Your task to perform on an android device: Open Yahoo.com Image 0: 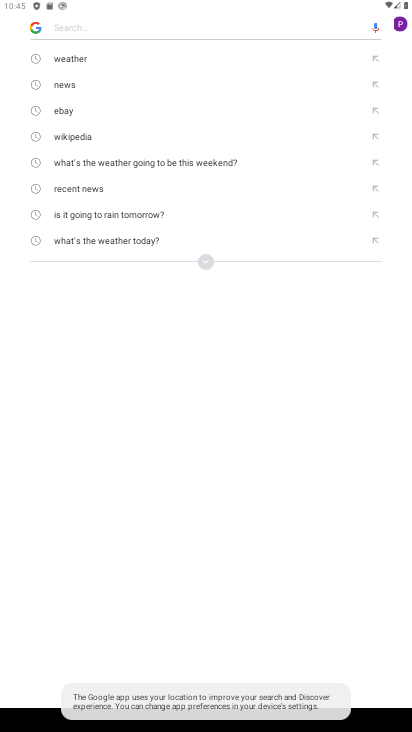
Step 0: press home button
Your task to perform on an android device: Open Yahoo.com Image 1: 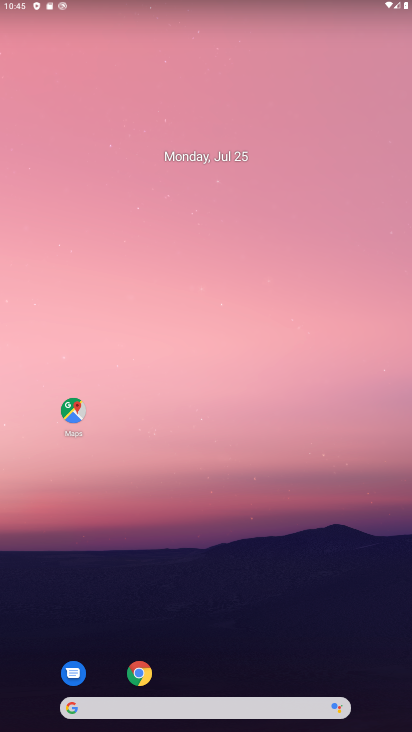
Step 1: click (69, 703)
Your task to perform on an android device: Open Yahoo.com Image 2: 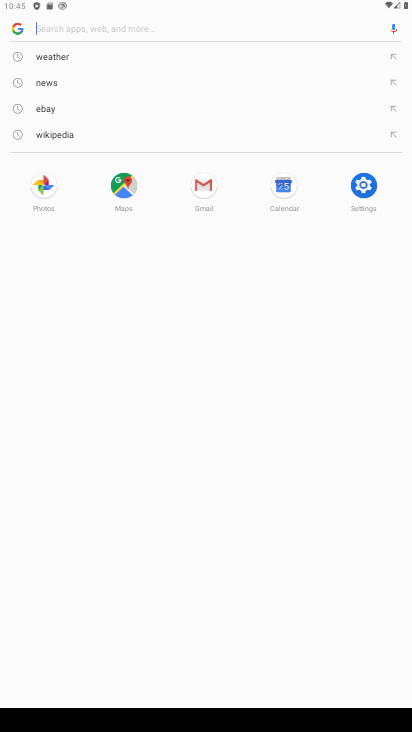
Step 2: type " Yahoo.com"
Your task to perform on an android device: Open Yahoo.com Image 3: 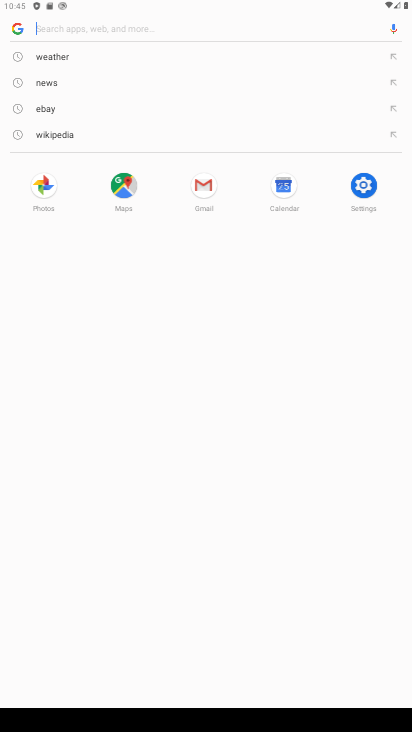
Step 3: click (58, 25)
Your task to perform on an android device: Open Yahoo.com Image 4: 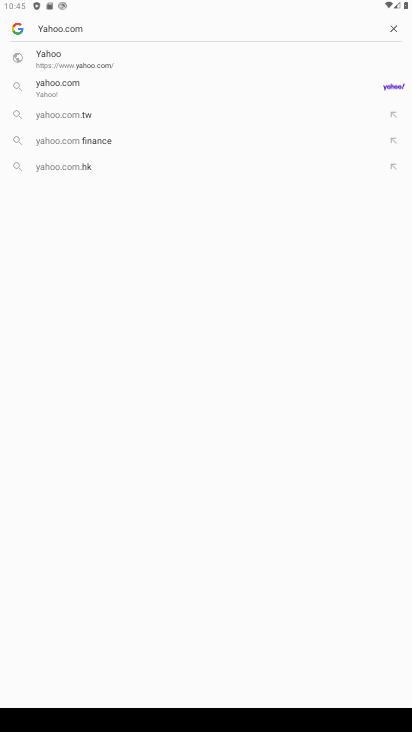
Step 4: press enter
Your task to perform on an android device: Open Yahoo.com Image 5: 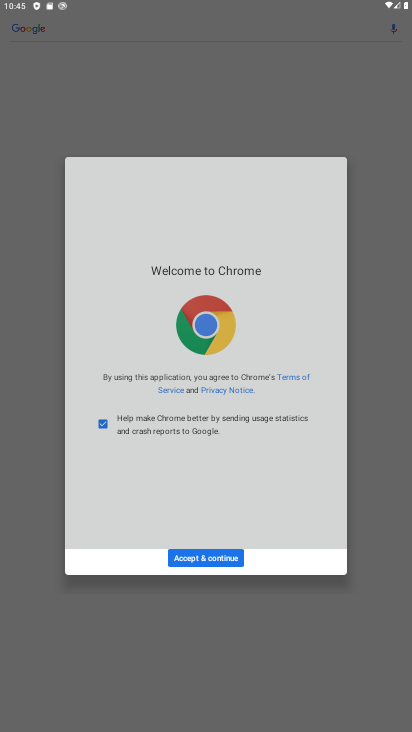
Step 5: click (188, 562)
Your task to perform on an android device: Open Yahoo.com Image 6: 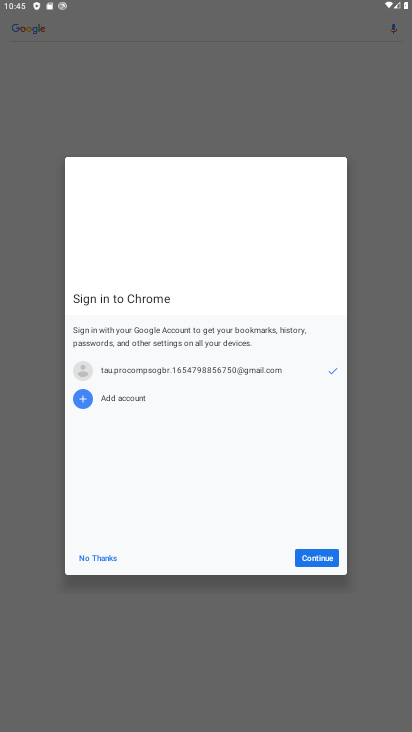
Step 6: click (314, 563)
Your task to perform on an android device: Open Yahoo.com Image 7: 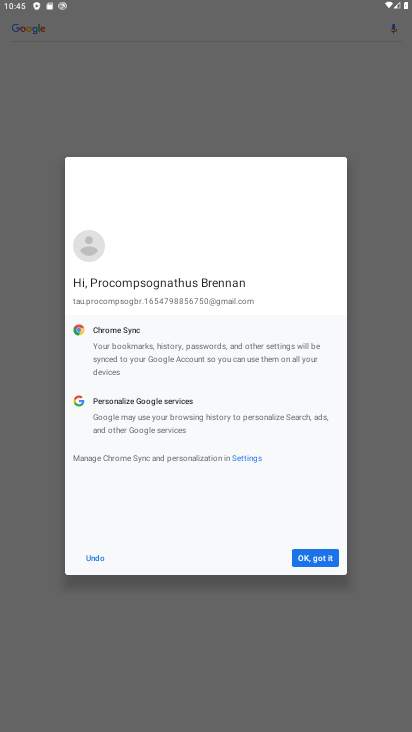
Step 7: click (328, 554)
Your task to perform on an android device: Open Yahoo.com Image 8: 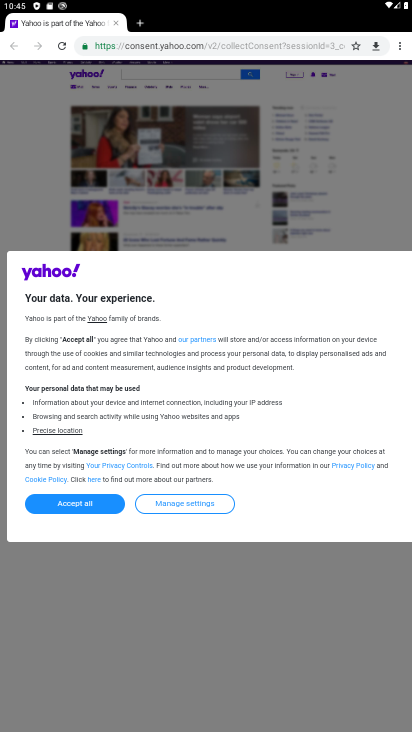
Step 8: click (60, 499)
Your task to perform on an android device: Open Yahoo.com Image 9: 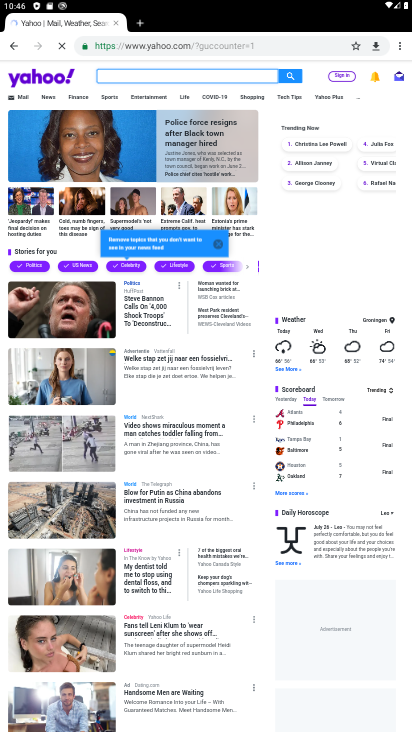
Step 9: task complete